Your task to perform on an android device: open wifi settings Image 0: 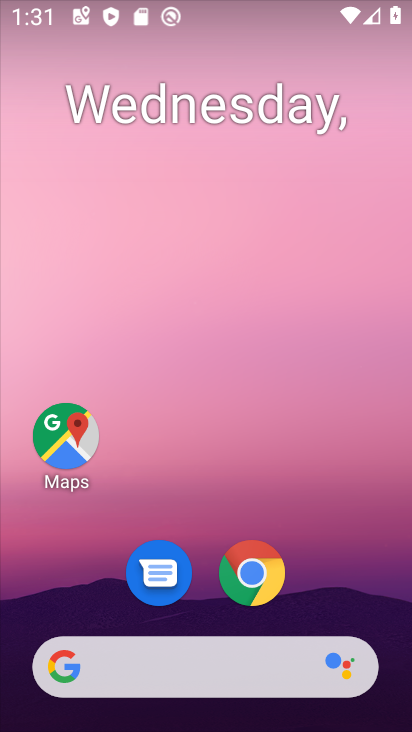
Step 0: drag from (200, 508) to (226, 169)
Your task to perform on an android device: open wifi settings Image 1: 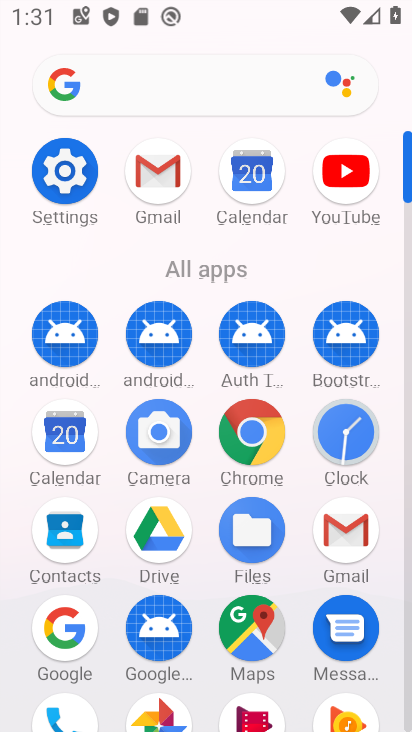
Step 1: click (63, 168)
Your task to perform on an android device: open wifi settings Image 2: 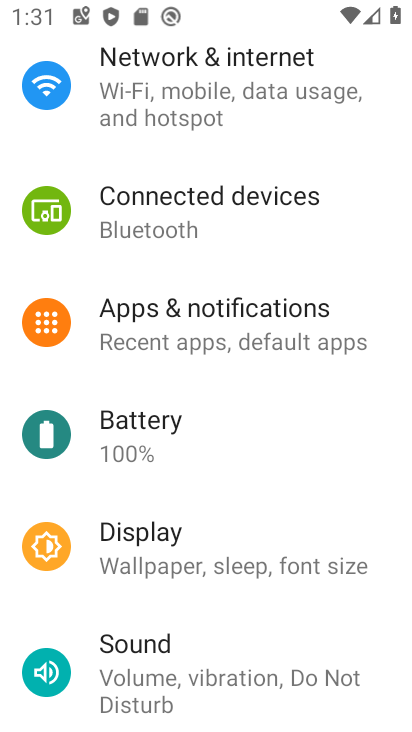
Step 2: click (207, 100)
Your task to perform on an android device: open wifi settings Image 3: 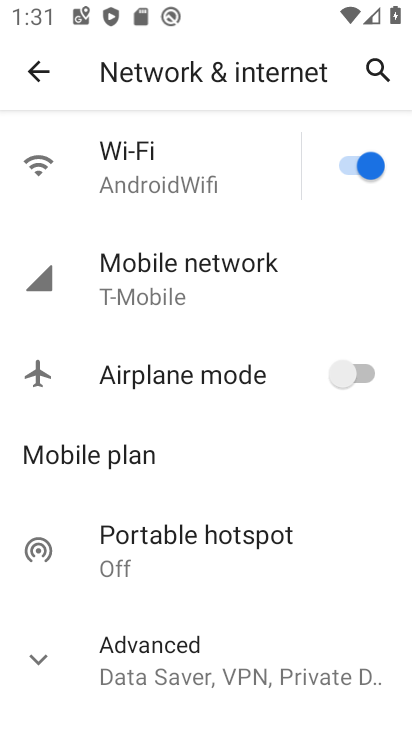
Step 3: click (167, 166)
Your task to perform on an android device: open wifi settings Image 4: 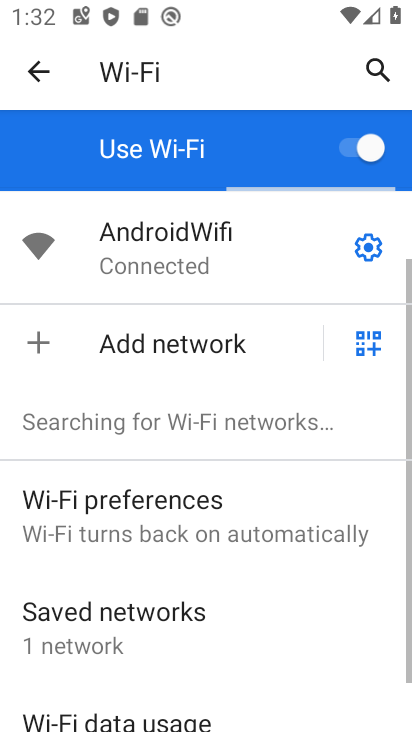
Step 4: click (367, 247)
Your task to perform on an android device: open wifi settings Image 5: 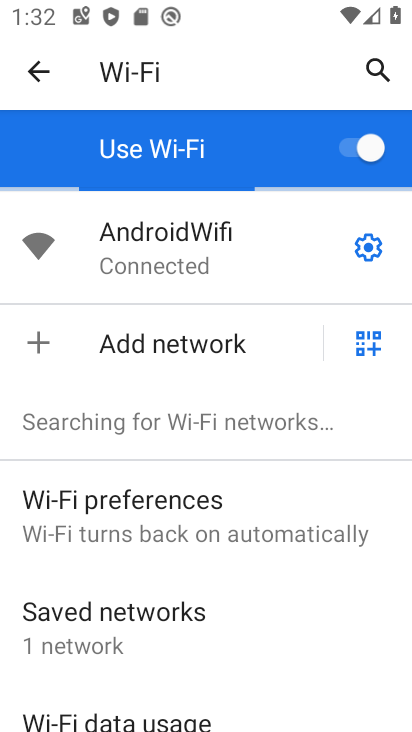
Step 5: click (367, 255)
Your task to perform on an android device: open wifi settings Image 6: 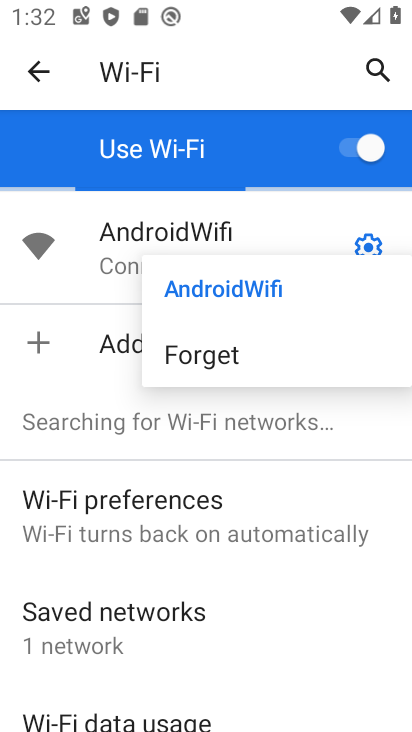
Step 6: click (372, 239)
Your task to perform on an android device: open wifi settings Image 7: 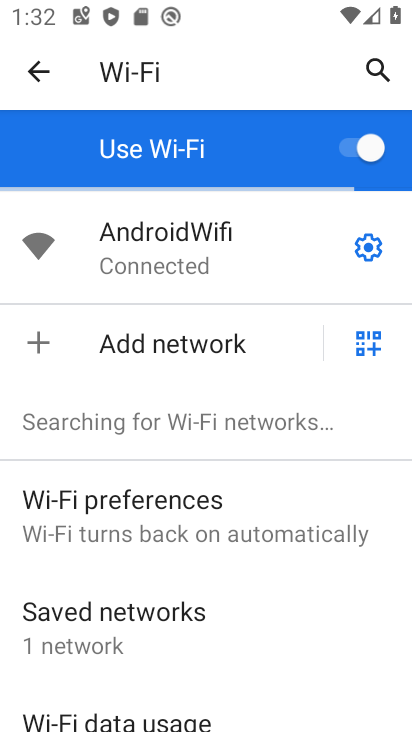
Step 7: click (362, 246)
Your task to perform on an android device: open wifi settings Image 8: 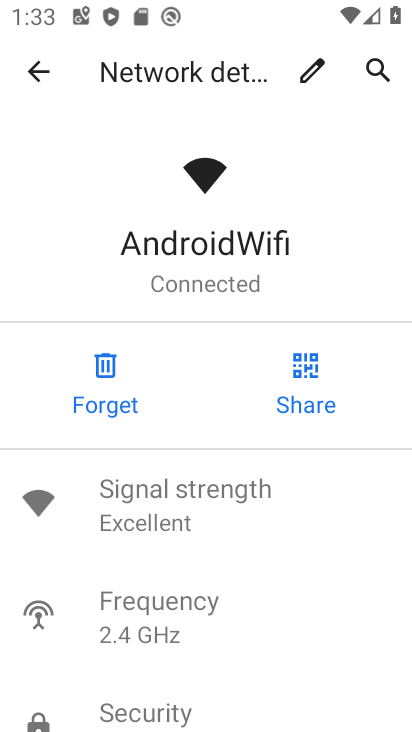
Step 8: task complete